Your task to perform on an android device: Play the last video I watched on Youtube Image 0: 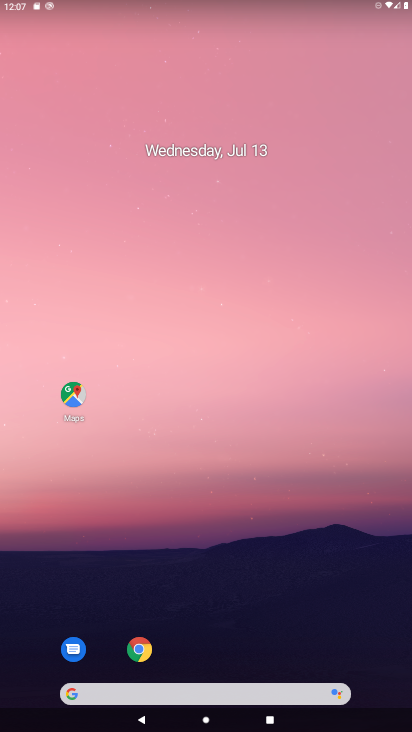
Step 0: drag from (383, 692) to (329, 109)
Your task to perform on an android device: Play the last video I watched on Youtube Image 1: 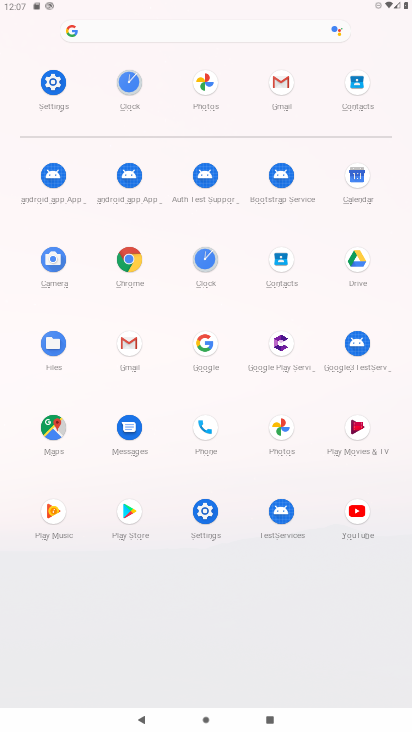
Step 1: click (355, 513)
Your task to perform on an android device: Play the last video I watched on Youtube Image 2: 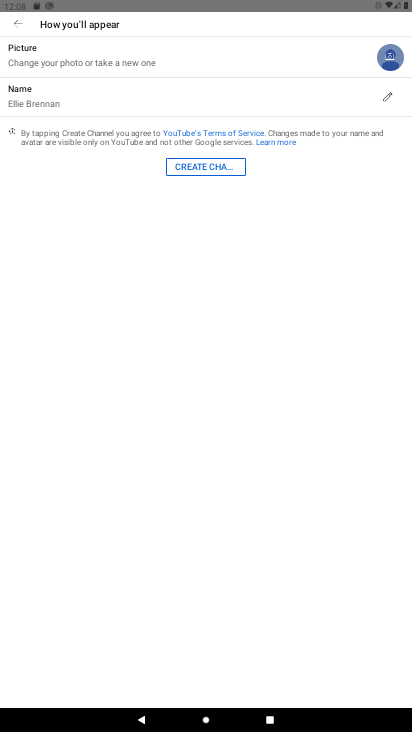
Step 2: press back button
Your task to perform on an android device: Play the last video I watched on Youtube Image 3: 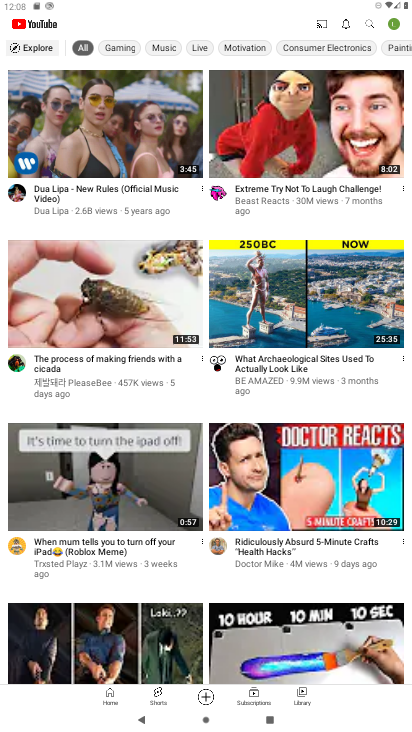
Step 3: click (299, 693)
Your task to perform on an android device: Play the last video I watched on Youtube Image 4: 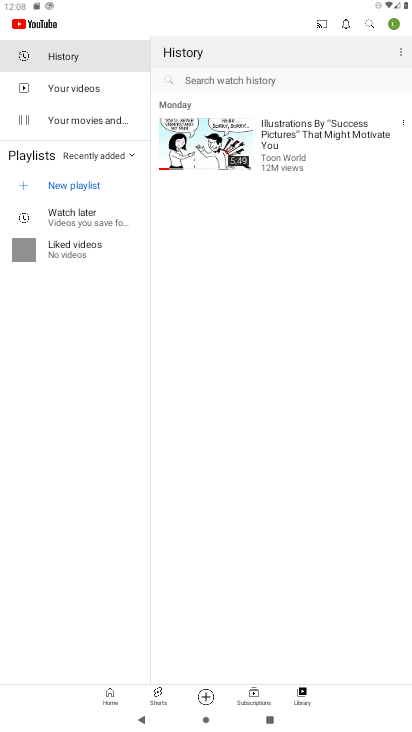
Step 4: click (233, 141)
Your task to perform on an android device: Play the last video I watched on Youtube Image 5: 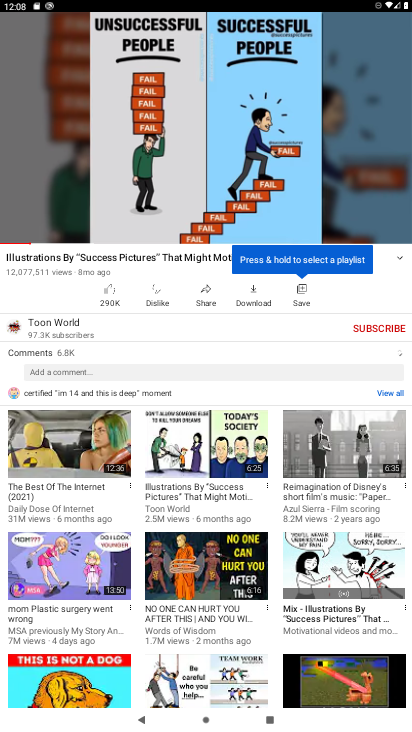
Step 5: click (192, 122)
Your task to perform on an android device: Play the last video I watched on Youtube Image 6: 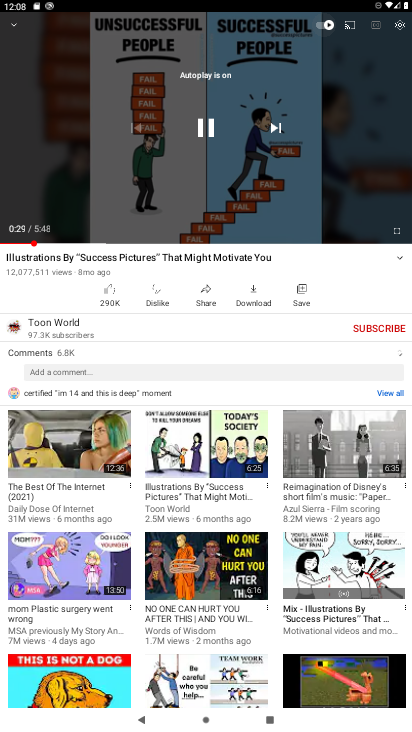
Step 6: click (208, 126)
Your task to perform on an android device: Play the last video I watched on Youtube Image 7: 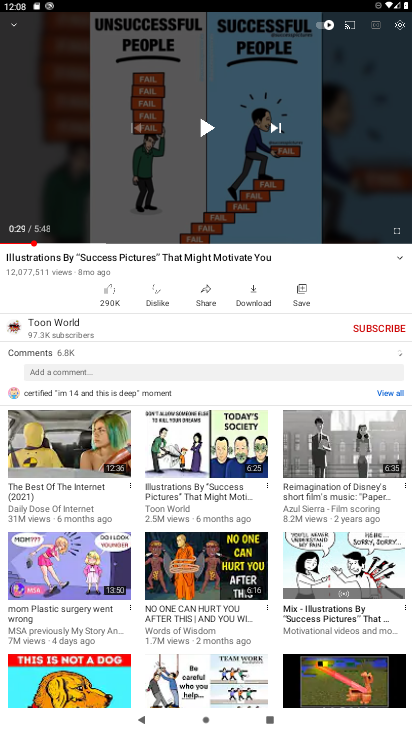
Step 7: task complete